Your task to perform on an android device: check out phone information Image 0: 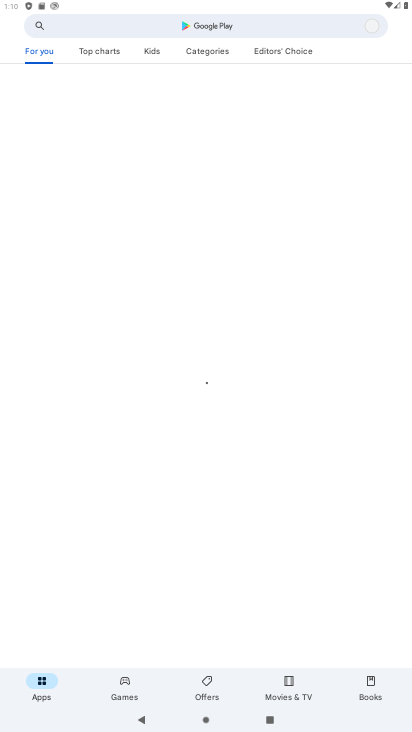
Step 0: press home button
Your task to perform on an android device: check out phone information Image 1: 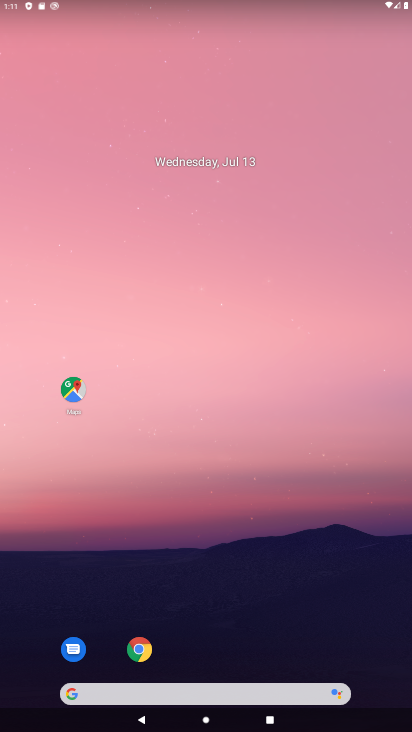
Step 1: drag from (226, 683) to (276, 179)
Your task to perform on an android device: check out phone information Image 2: 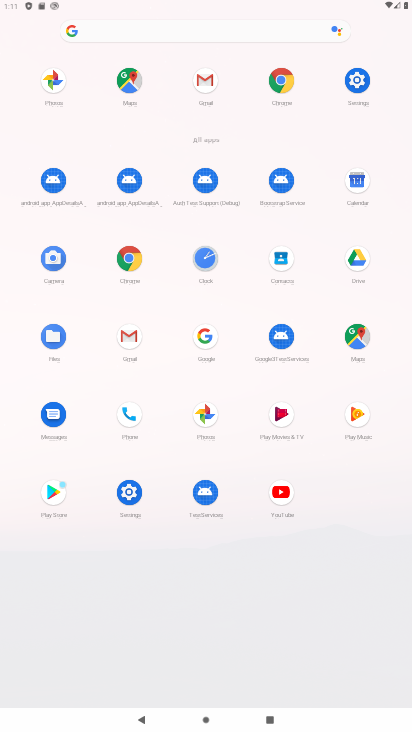
Step 2: click (124, 499)
Your task to perform on an android device: check out phone information Image 3: 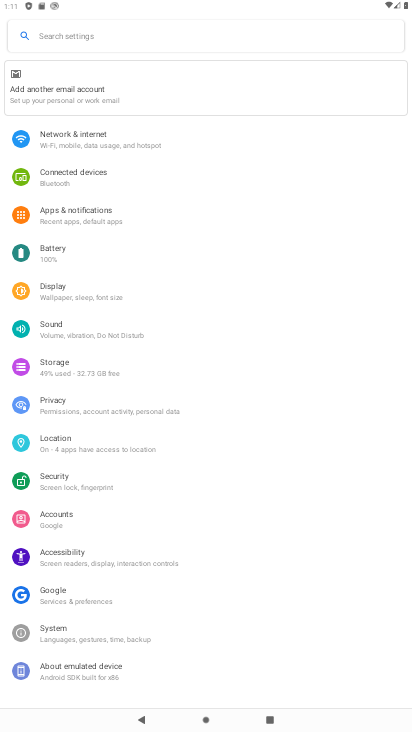
Step 3: click (127, 678)
Your task to perform on an android device: check out phone information Image 4: 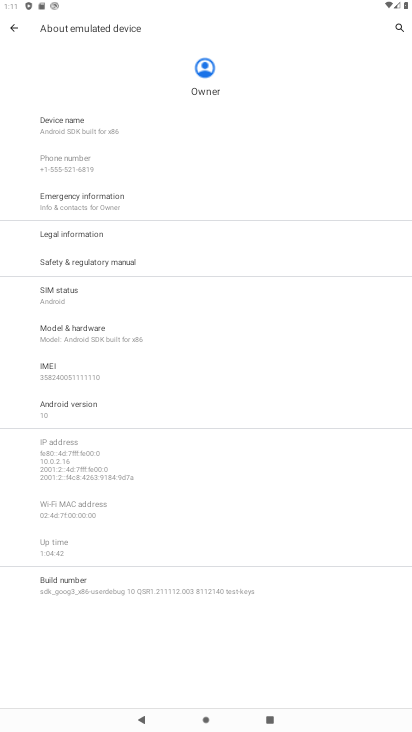
Step 4: task complete